Your task to perform on an android device: Open Amazon Image 0: 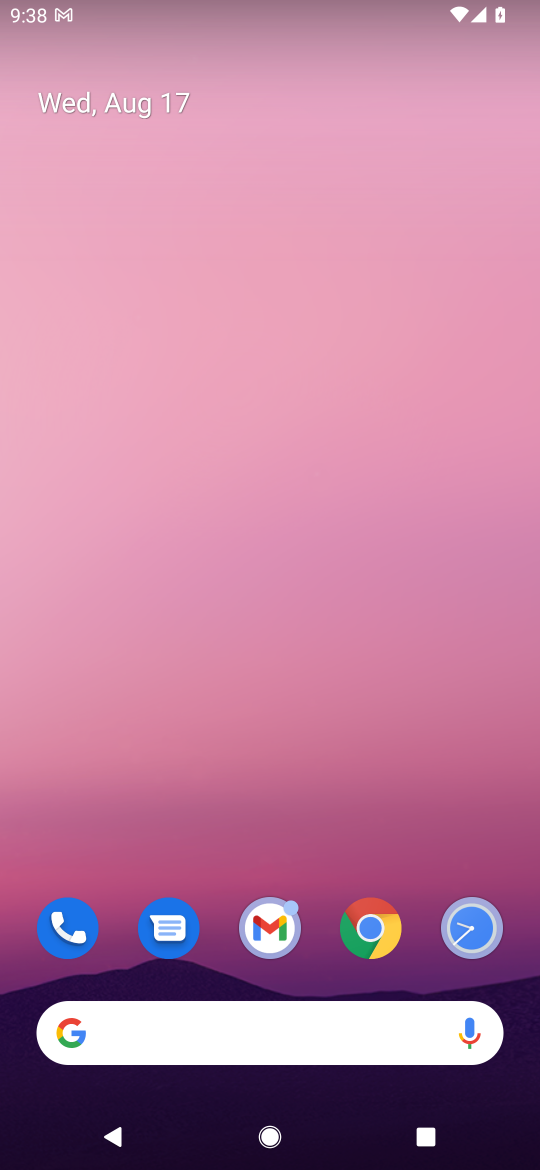
Step 0: click (368, 908)
Your task to perform on an android device: Open Amazon Image 1: 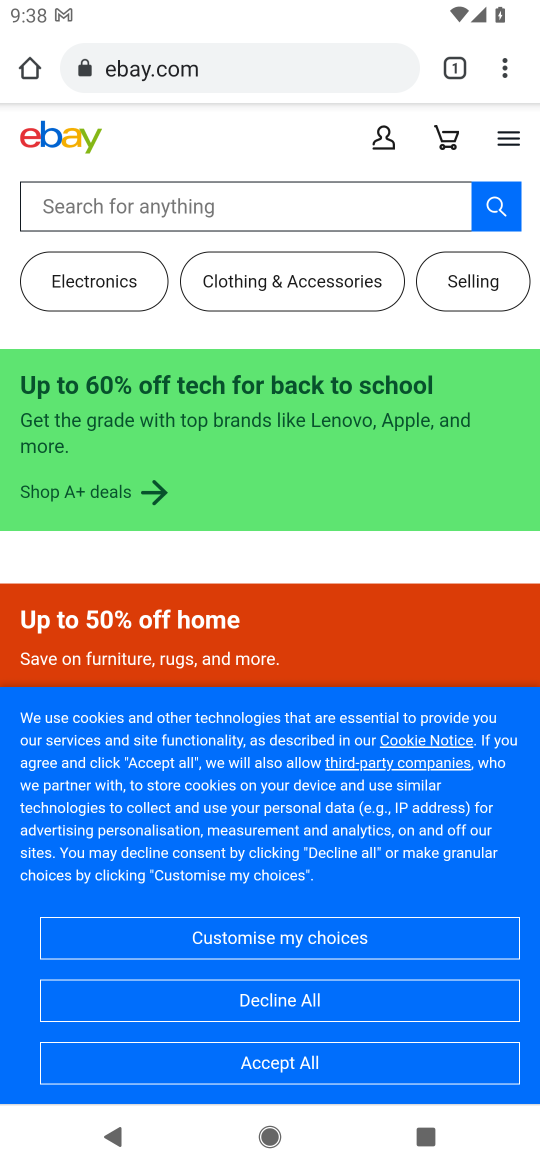
Step 1: click (452, 70)
Your task to perform on an android device: Open Amazon Image 2: 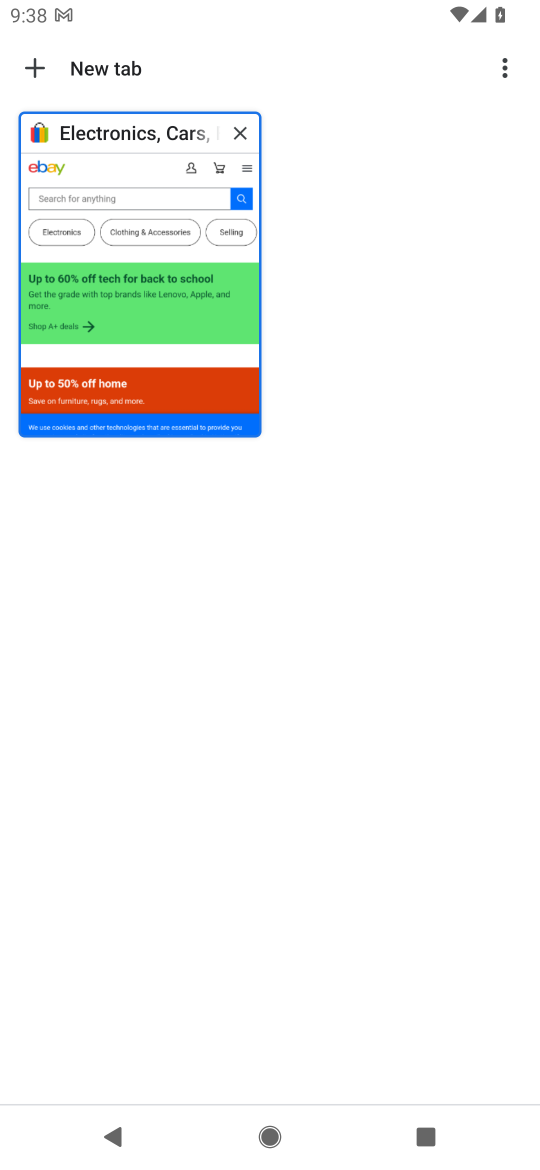
Step 2: drag from (42, 66) to (395, 602)
Your task to perform on an android device: Open Amazon Image 3: 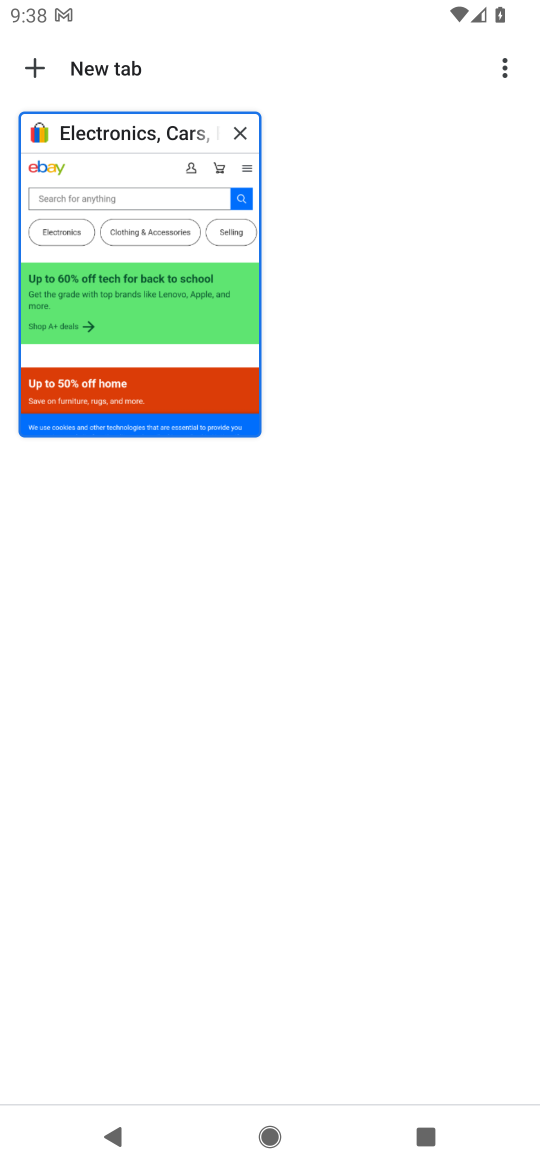
Step 3: click (31, 64)
Your task to perform on an android device: Open Amazon Image 4: 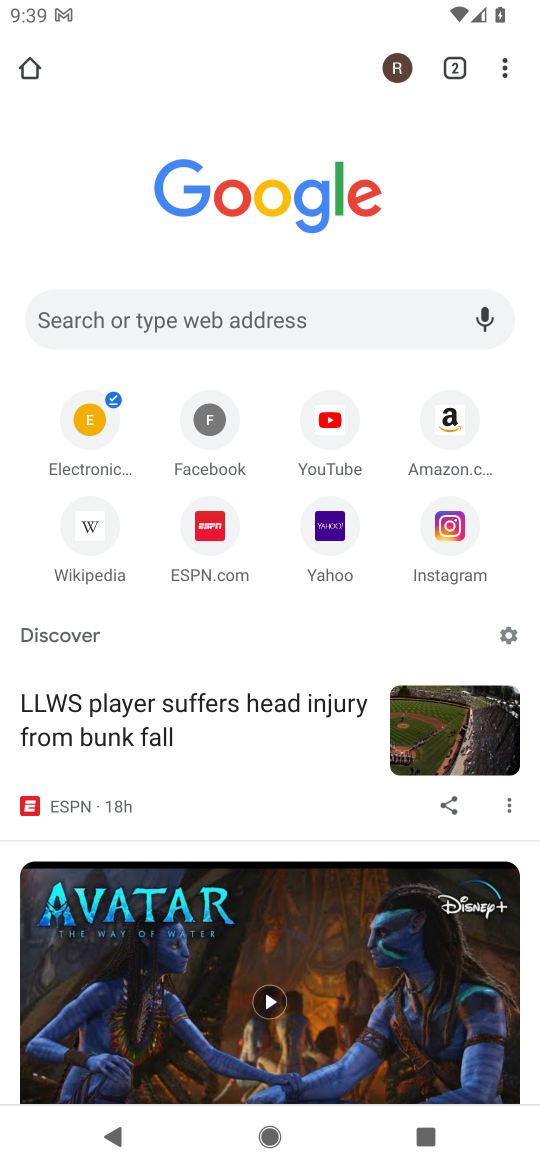
Step 4: click (441, 404)
Your task to perform on an android device: Open Amazon Image 5: 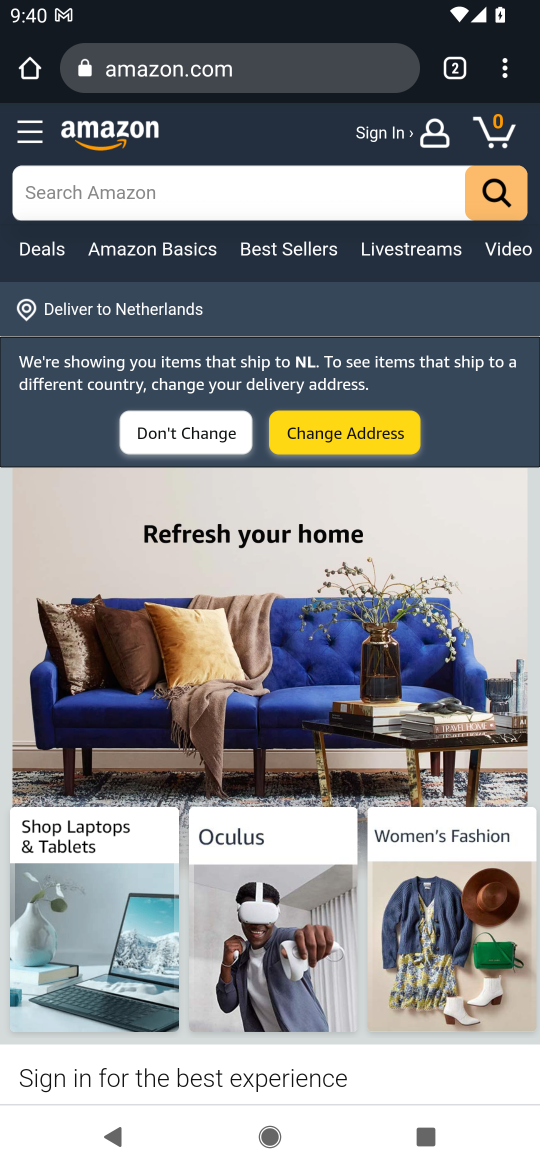
Step 5: task complete